Your task to perform on an android device: Go to Yahoo.com Image 0: 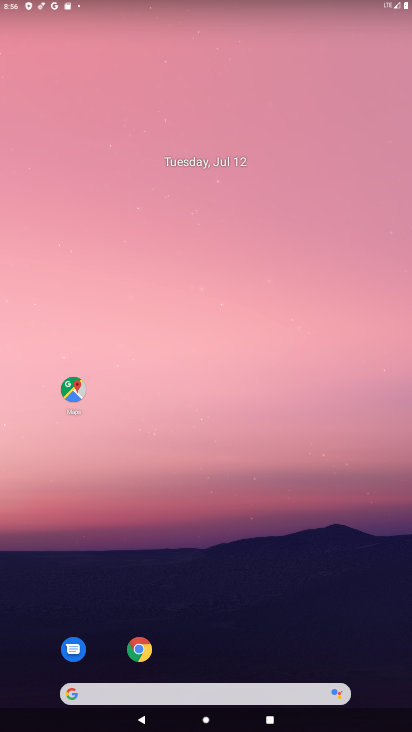
Step 0: drag from (348, 659) to (311, 115)
Your task to perform on an android device: Go to Yahoo.com Image 1: 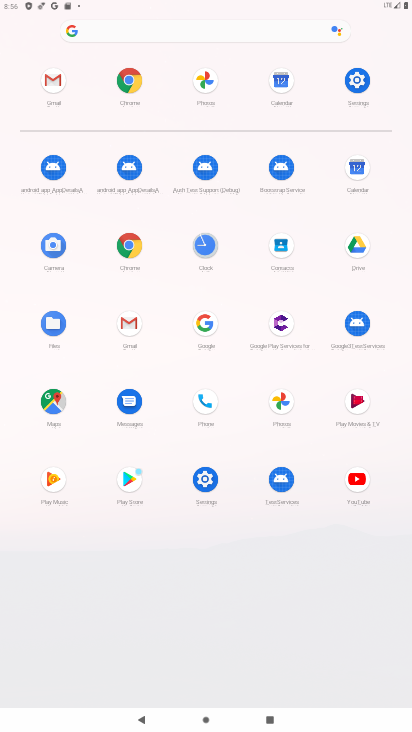
Step 1: click (360, 88)
Your task to perform on an android device: Go to Yahoo.com Image 2: 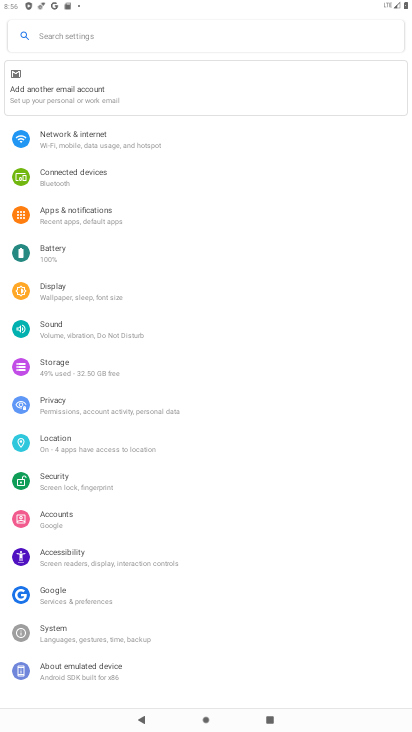
Step 2: press home button
Your task to perform on an android device: Go to Yahoo.com Image 3: 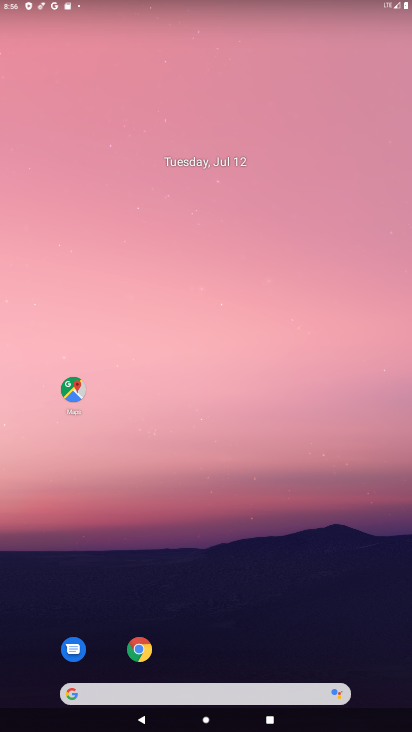
Step 3: click (141, 648)
Your task to perform on an android device: Go to Yahoo.com Image 4: 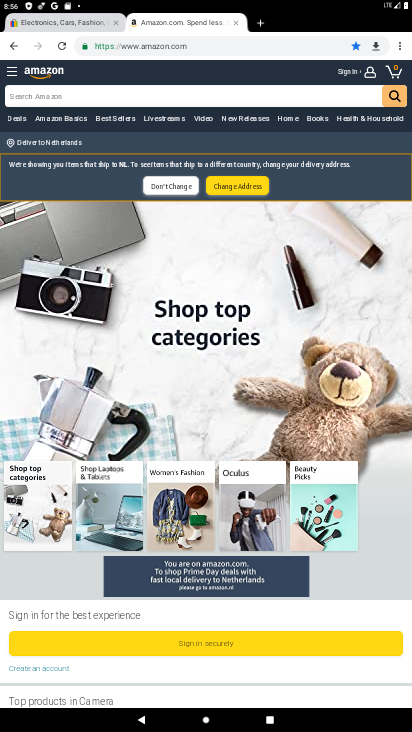
Step 4: click (266, 47)
Your task to perform on an android device: Go to Yahoo.com Image 5: 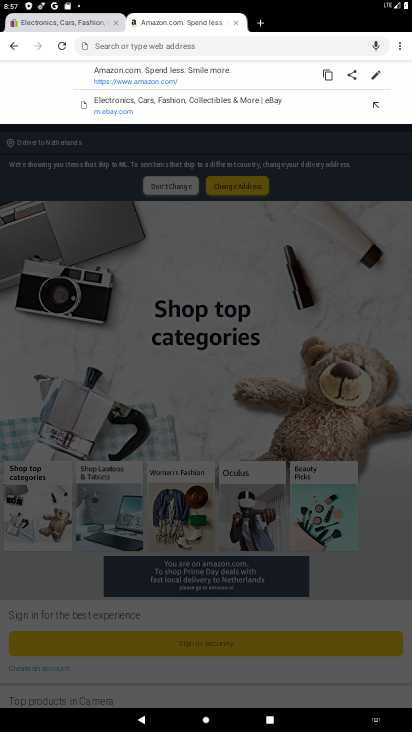
Step 5: type "yahoo.com"
Your task to perform on an android device: Go to Yahoo.com Image 6: 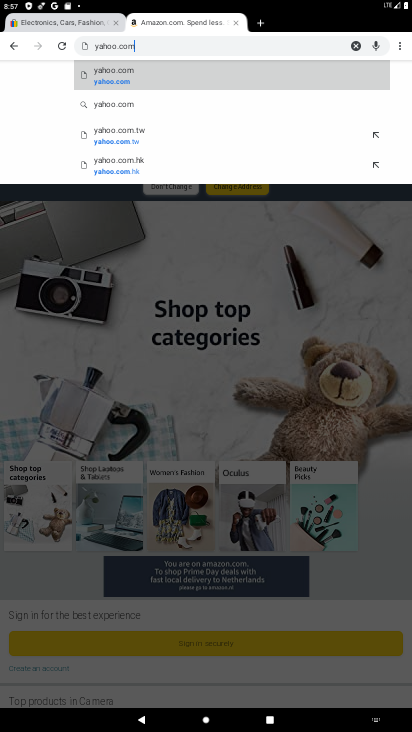
Step 6: click (236, 76)
Your task to perform on an android device: Go to Yahoo.com Image 7: 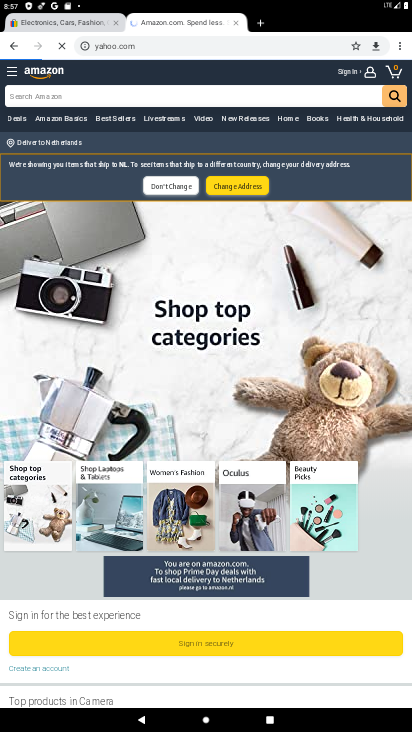
Step 7: task complete